Your task to perform on an android device: Go to Reddit.com Image 0: 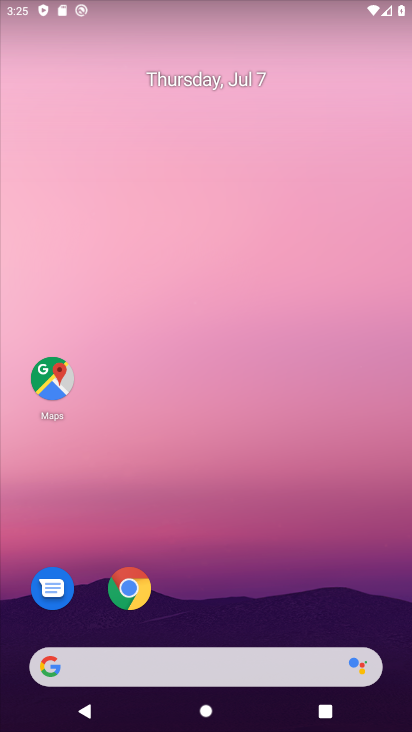
Step 0: drag from (319, 654) to (339, 91)
Your task to perform on an android device: Go to Reddit.com Image 1: 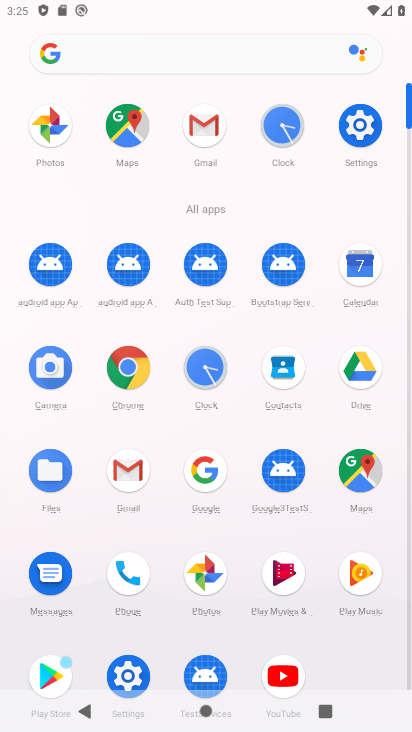
Step 1: click (138, 369)
Your task to perform on an android device: Go to Reddit.com Image 2: 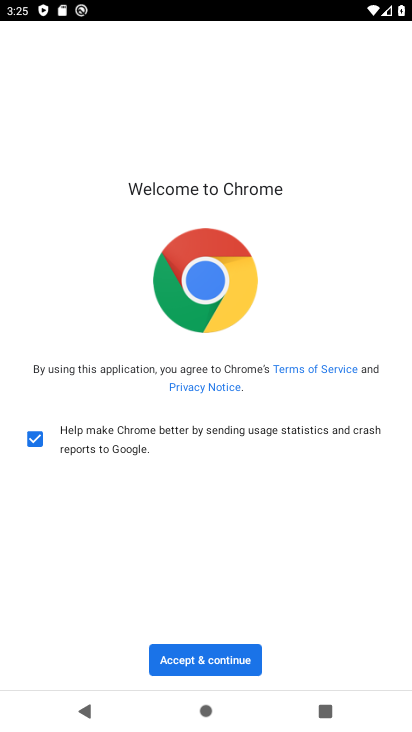
Step 2: click (173, 663)
Your task to perform on an android device: Go to Reddit.com Image 3: 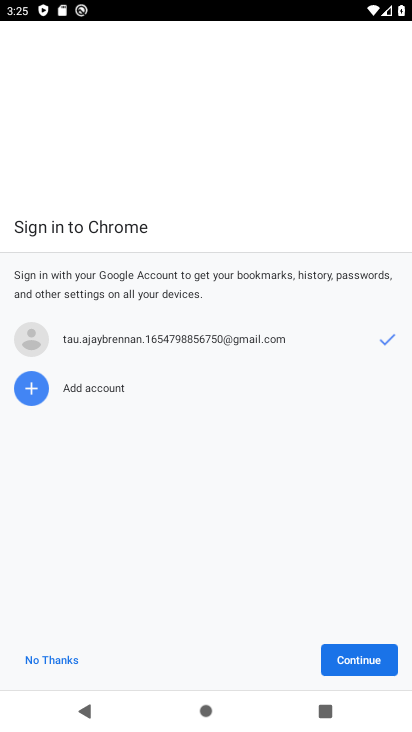
Step 3: click (66, 659)
Your task to perform on an android device: Go to Reddit.com Image 4: 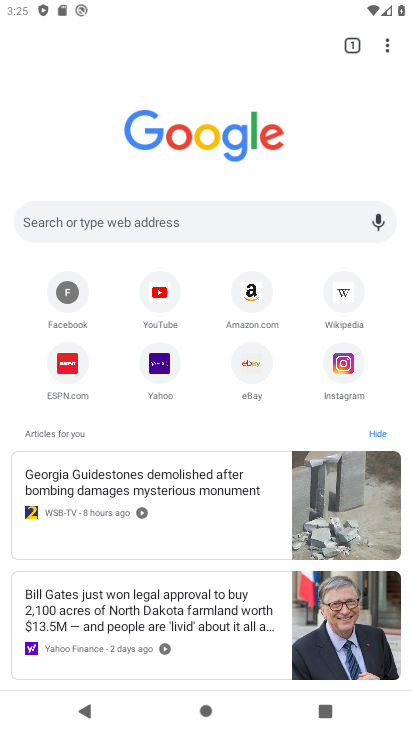
Step 4: click (182, 218)
Your task to perform on an android device: Go to Reddit.com Image 5: 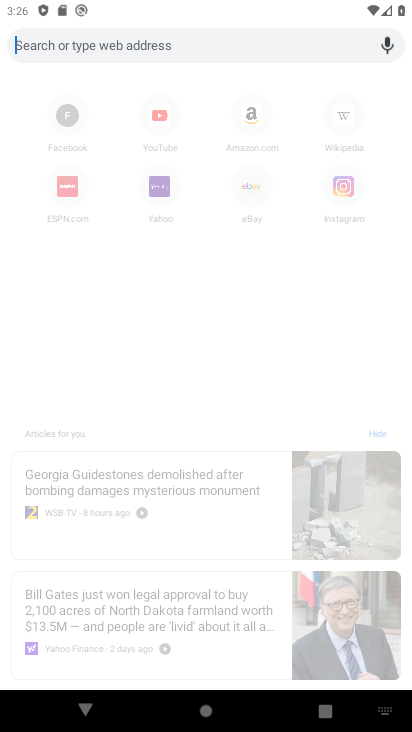
Step 5: type "reddit.com"
Your task to perform on an android device: Go to Reddit.com Image 6: 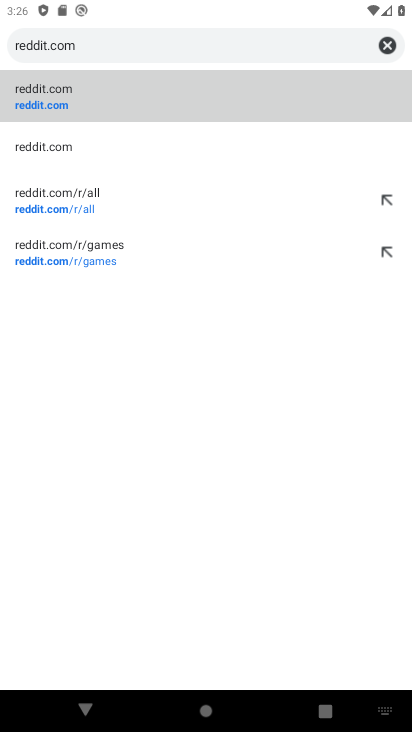
Step 6: click (64, 94)
Your task to perform on an android device: Go to Reddit.com Image 7: 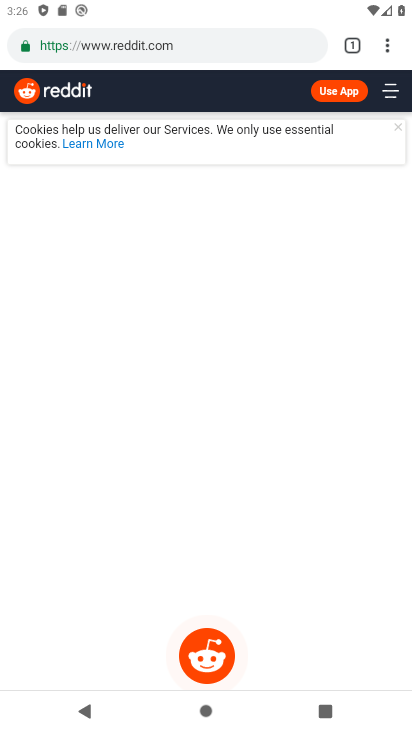
Step 7: task complete